Your task to perform on an android device: show emergency info Image 0: 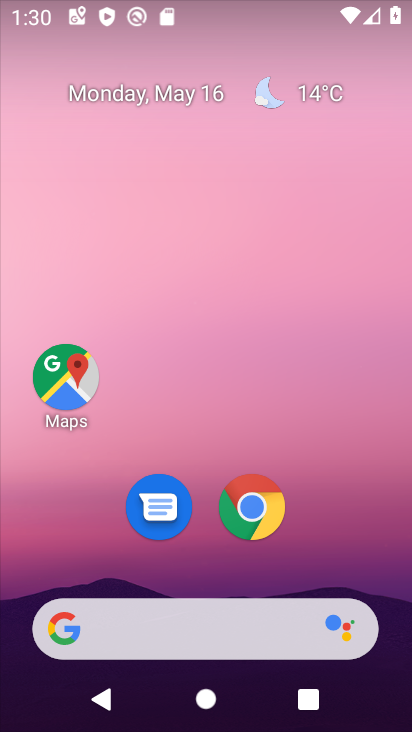
Step 0: drag from (232, 553) to (238, 224)
Your task to perform on an android device: show emergency info Image 1: 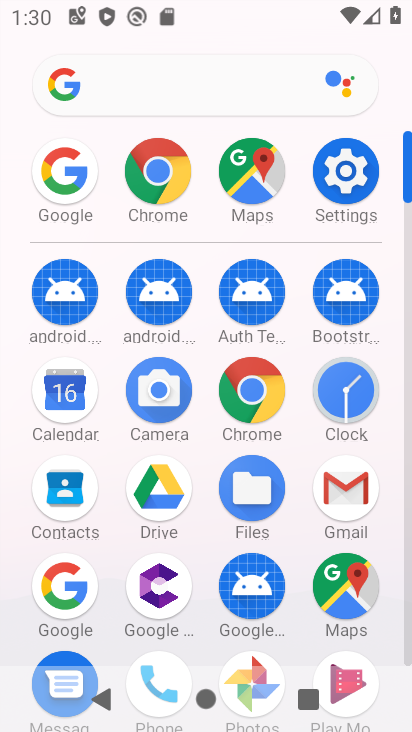
Step 1: click (346, 185)
Your task to perform on an android device: show emergency info Image 2: 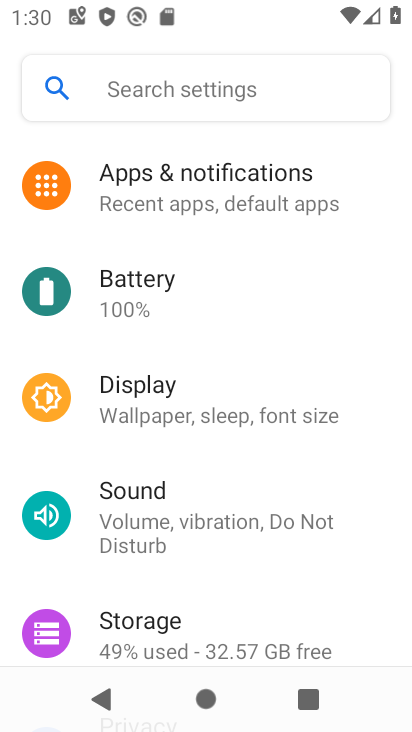
Step 2: drag from (191, 608) to (231, 272)
Your task to perform on an android device: show emergency info Image 3: 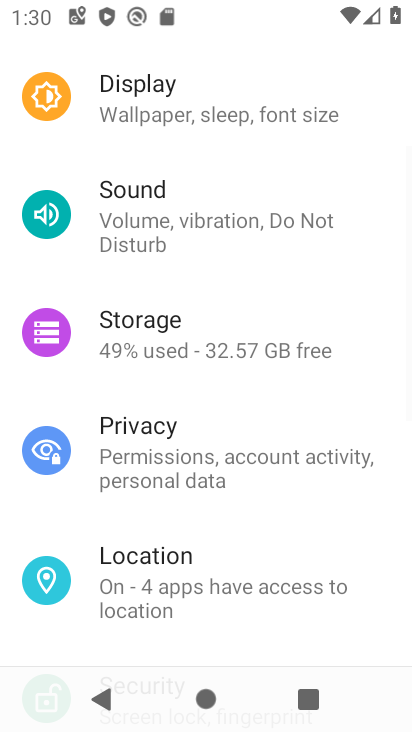
Step 3: drag from (301, 552) to (295, 171)
Your task to perform on an android device: show emergency info Image 4: 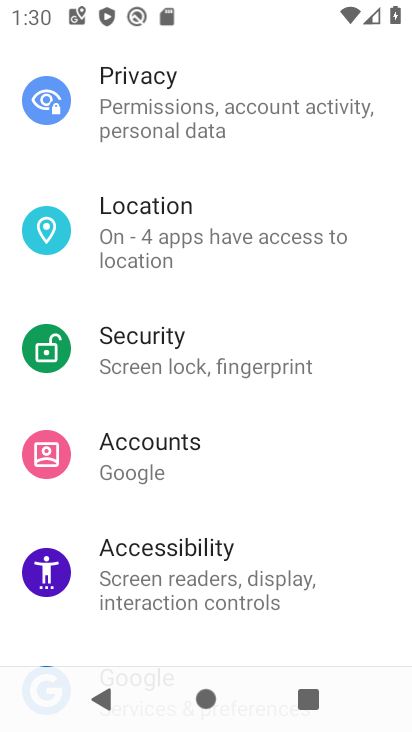
Step 4: drag from (276, 524) to (287, 147)
Your task to perform on an android device: show emergency info Image 5: 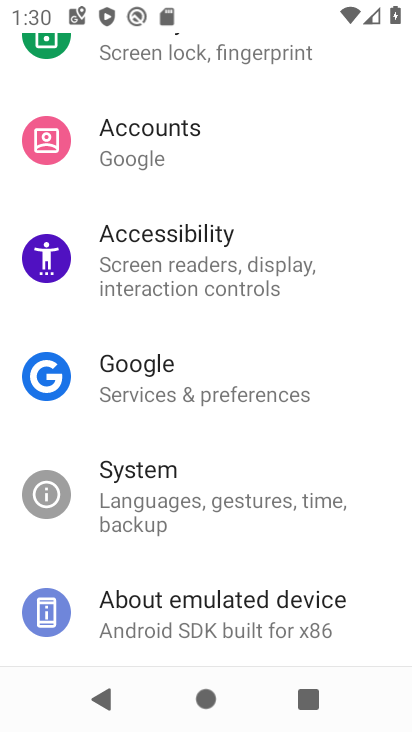
Step 5: drag from (227, 591) to (240, 311)
Your task to perform on an android device: show emergency info Image 6: 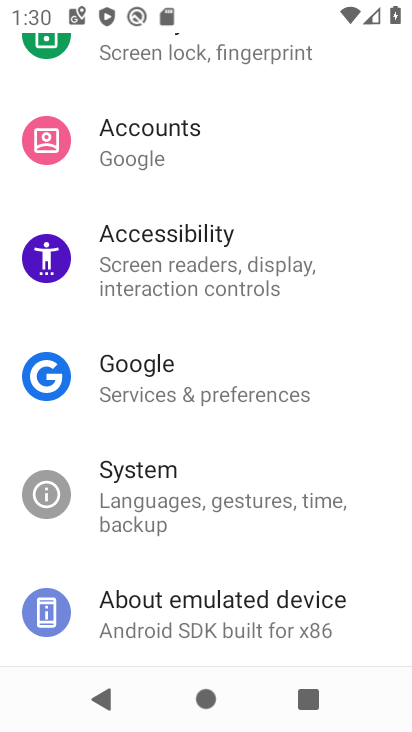
Step 6: click (260, 615)
Your task to perform on an android device: show emergency info Image 7: 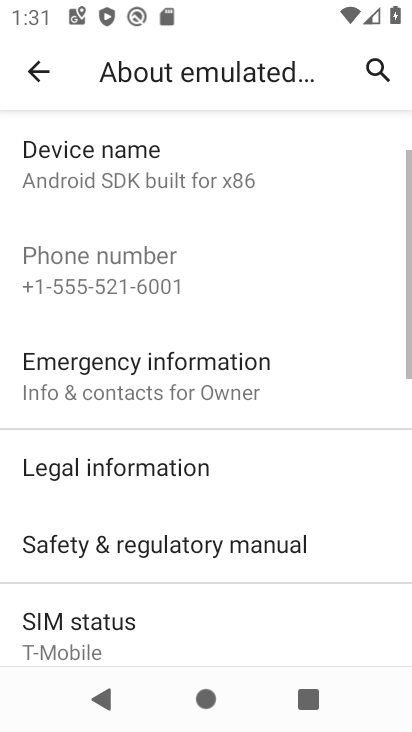
Step 7: click (244, 374)
Your task to perform on an android device: show emergency info Image 8: 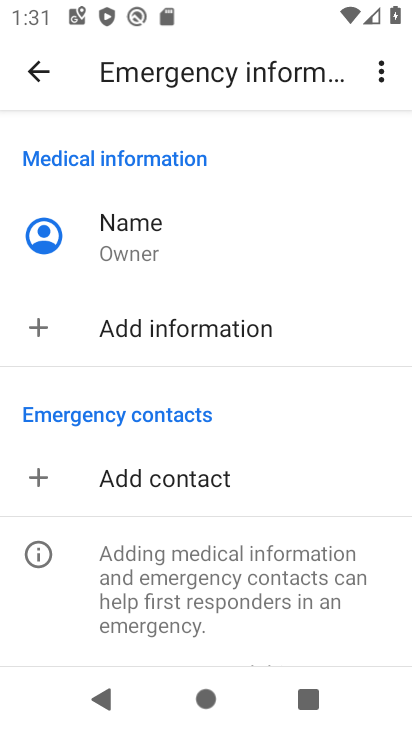
Step 8: task complete